Your task to perform on an android device: Go to Google Image 0: 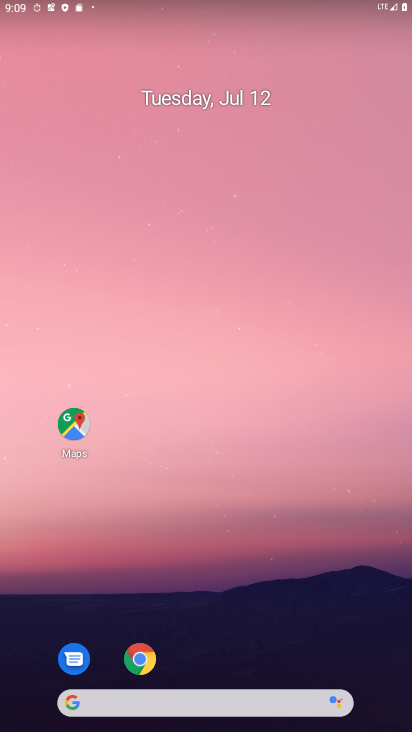
Step 0: drag from (376, 673) to (17, 118)
Your task to perform on an android device: Go to Google Image 1: 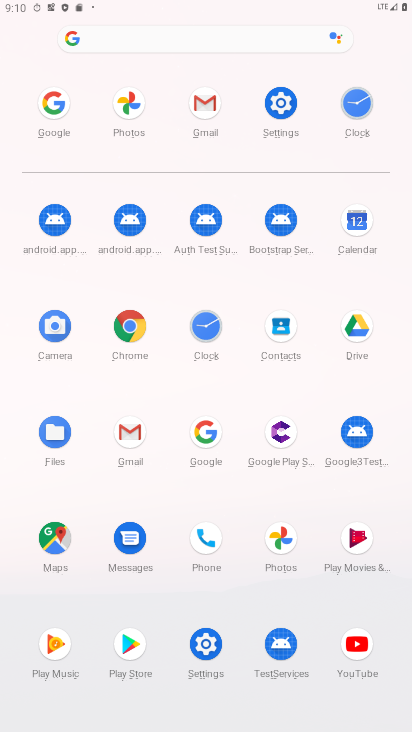
Step 1: click (202, 448)
Your task to perform on an android device: Go to Google Image 2: 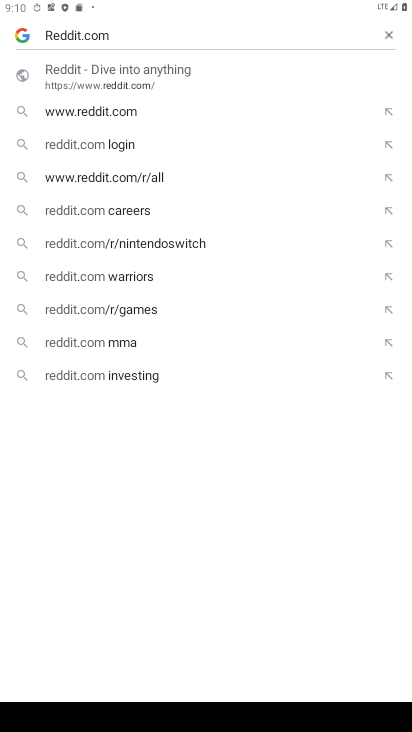
Step 2: click (385, 36)
Your task to perform on an android device: Go to Google Image 3: 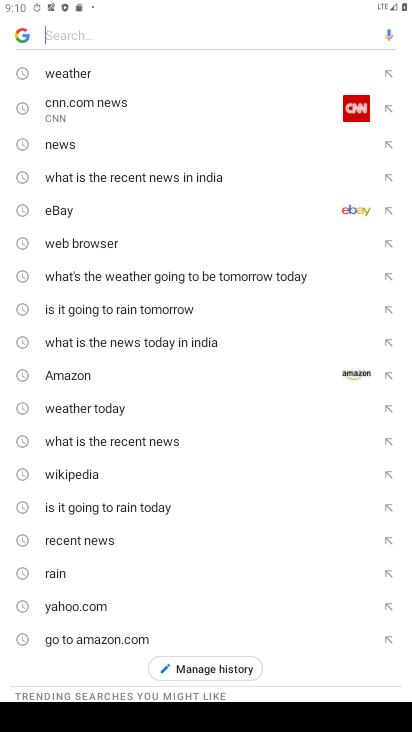
Step 3: task complete